Your task to perform on an android device: Open display settings Image 0: 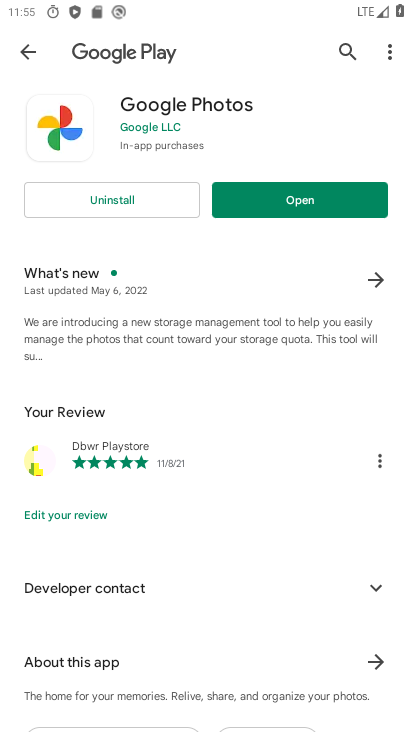
Step 0: press home button
Your task to perform on an android device: Open display settings Image 1: 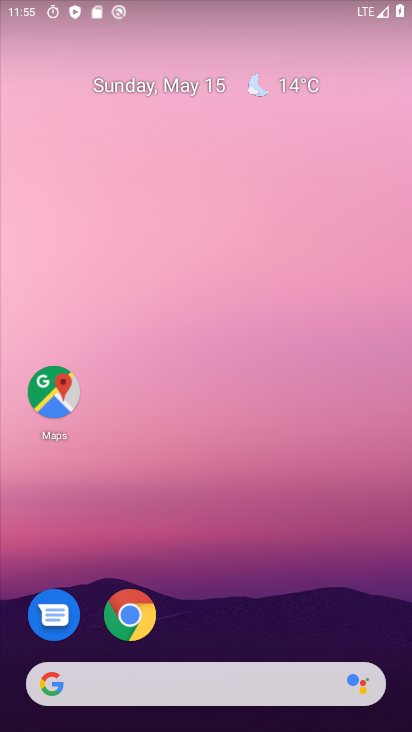
Step 1: drag from (280, 197) to (309, 148)
Your task to perform on an android device: Open display settings Image 2: 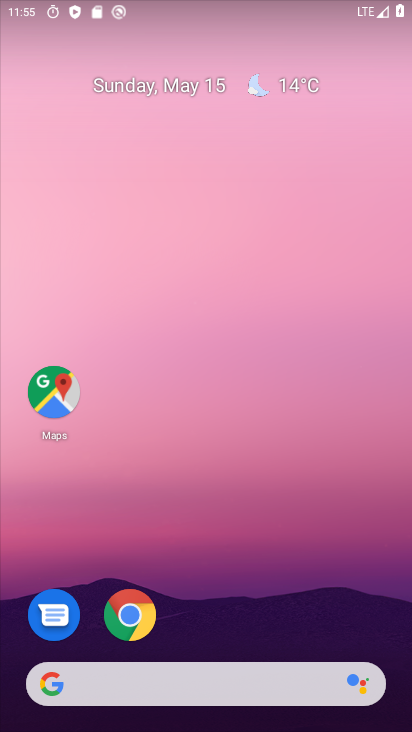
Step 2: drag from (303, 591) to (300, 91)
Your task to perform on an android device: Open display settings Image 3: 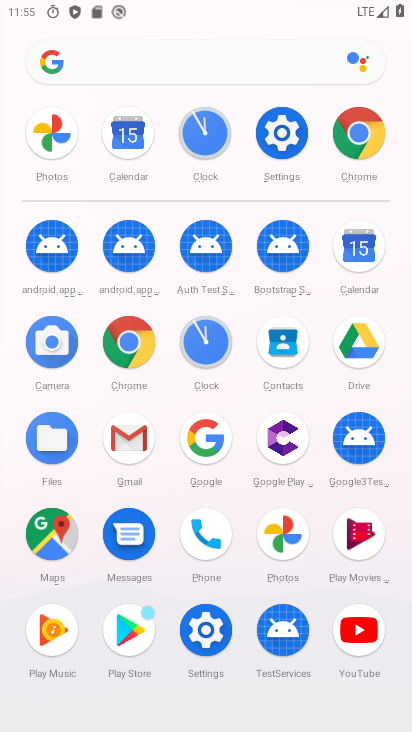
Step 3: click (273, 133)
Your task to perform on an android device: Open display settings Image 4: 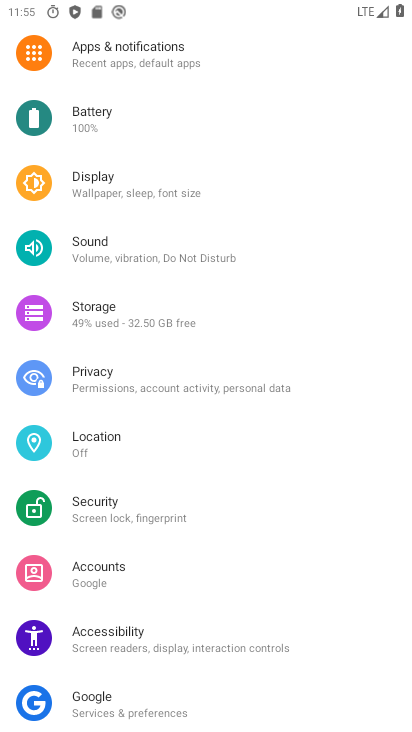
Step 4: click (134, 198)
Your task to perform on an android device: Open display settings Image 5: 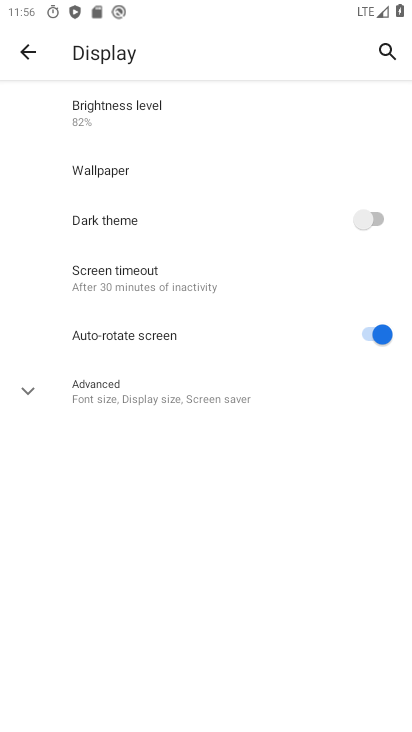
Step 5: task complete